Your task to perform on an android device: set the stopwatch Image 0: 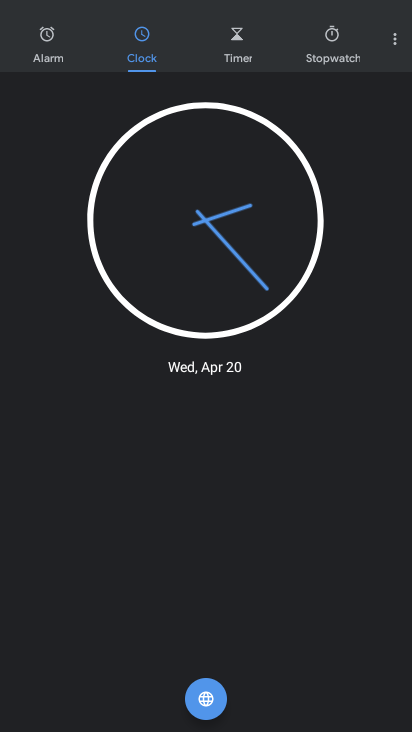
Step 0: click (328, 47)
Your task to perform on an android device: set the stopwatch Image 1: 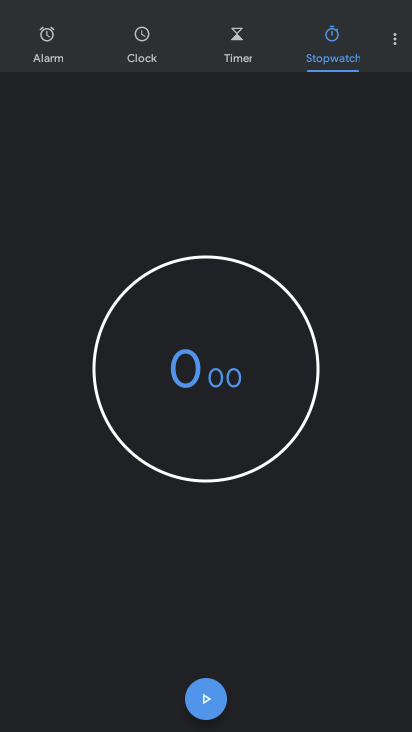
Step 1: task complete